Your task to perform on an android device: Open Youtube and go to "Your channel" Image 0: 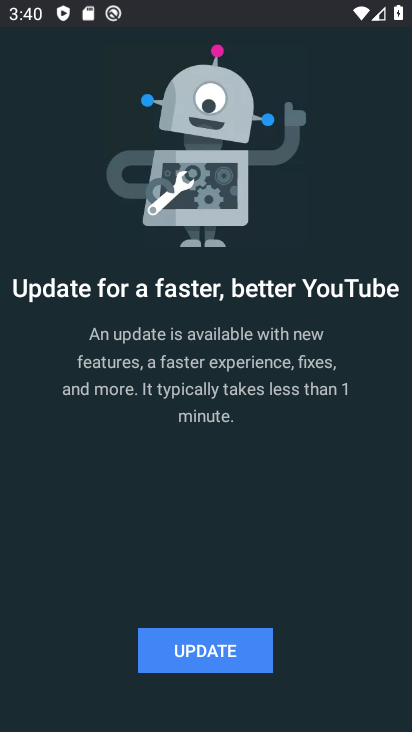
Step 0: click (216, 644)
Your task to perform on an android device: Open Youtube and go to "Your channel" Image 1: 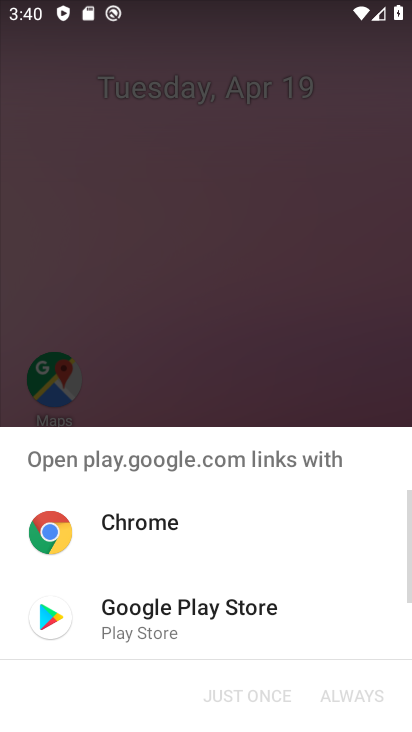
Step 1: click (216, 644)
Your task to perform on an android device: Open Youtube and go to "Your channel" Image 2: 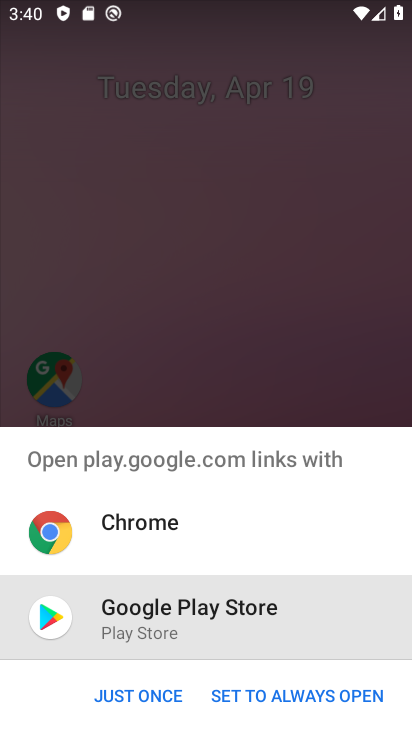
Step 2: click (139, 710)
Your task to perform on an android device: Open Youtube and go to "Your channel" Image 3: 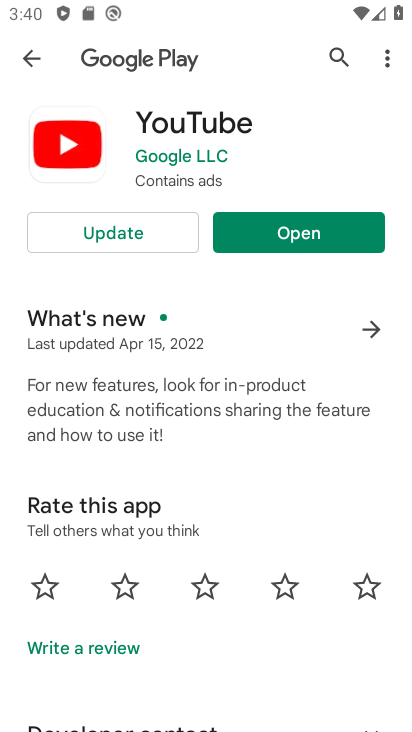
Step 3: click (296, 230)
Your task to perform on an android device: Open Youtube and go to "Your channel" Image 4: 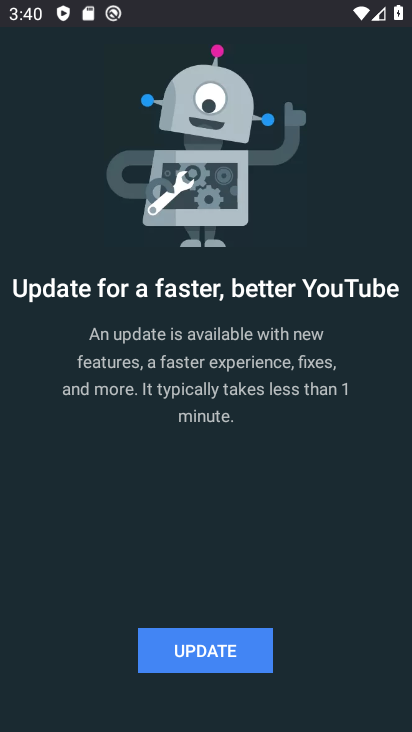
Step 4: click (205, 643)
Your task to perform on an android device: Open Youtube and go to "Your channel" Image 5: 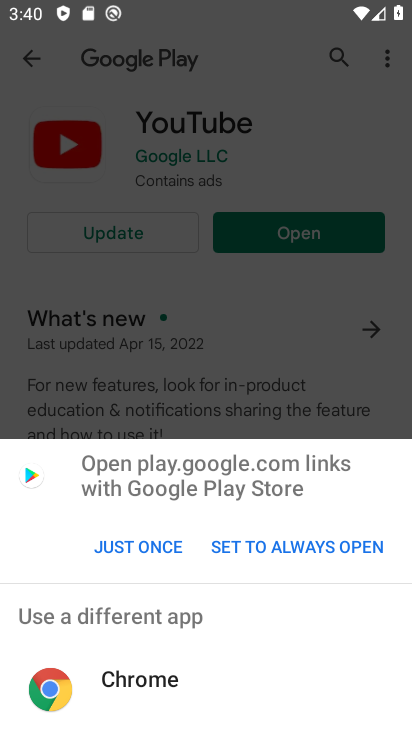
Step 5: click (162, 557)
Your task to perform on an android device: Open Youtube and go to "Your channel" Image 6: 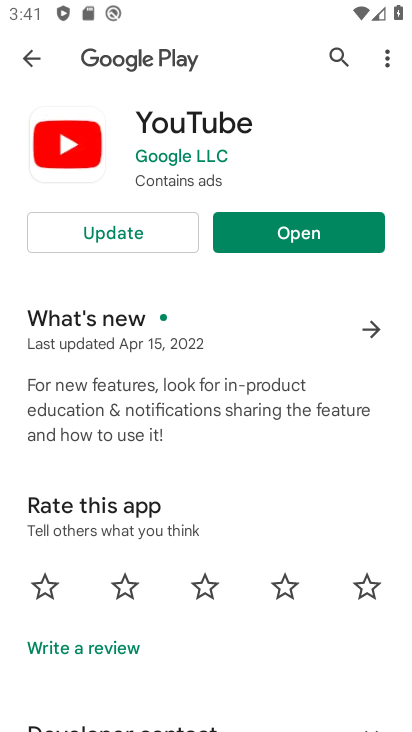
Step 6: click (286, 230)
Your task to perform on an android device: Open Youtube and go to "Your channel" Image 7: 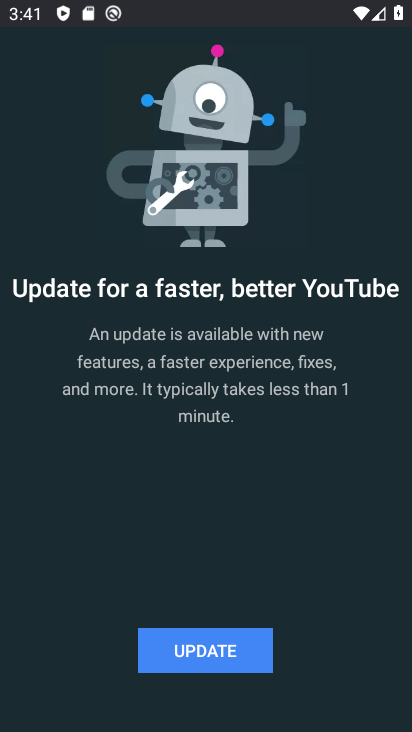
Step 7: click (187, 635)
Your task to perform on an android device: Open Youtube and go to "Your channel" Image 8: 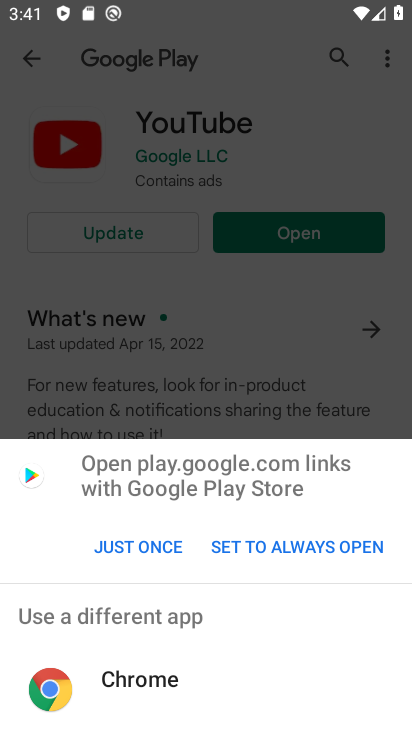
Step 8: click (154, 546)
Your task to perform on an android device: Open Youtube and go to "Your channel" Image 9: 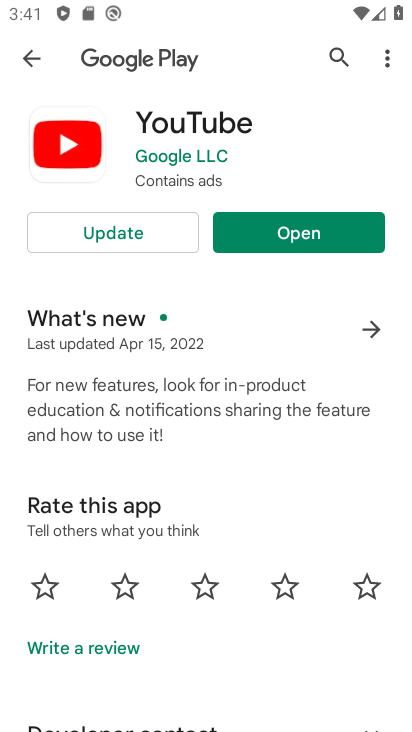
Step 9: click (341, 248)
Your task to perform on an android device: Open Youtube and go to "Your channel" Image 10: 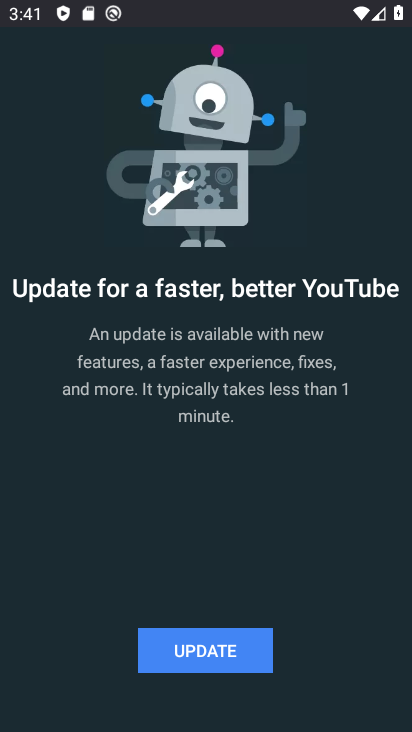
Step 10: click (202, 644)
Your task to perform on an android device: Open Youtube and go to "Your channel" Image 11: 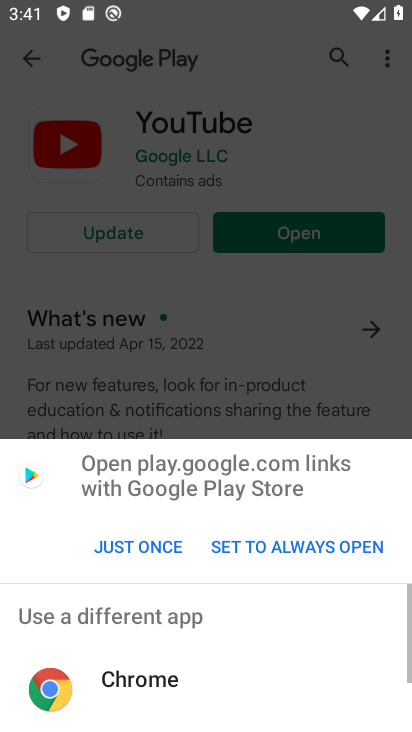
Step 11: click (202, 644)
Your task to perform on an android device: Open Youtube and go to "Your channel" Image 12: 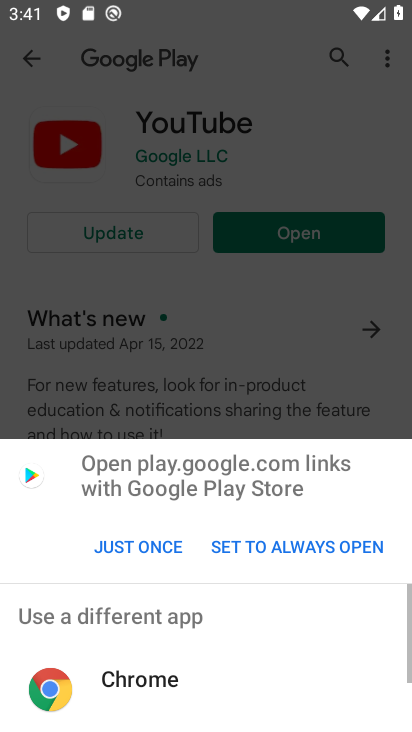
Step 12: click (170, 562)
Your task to perform on an android device: Open Youtube and go to "Your channel" Image 13: 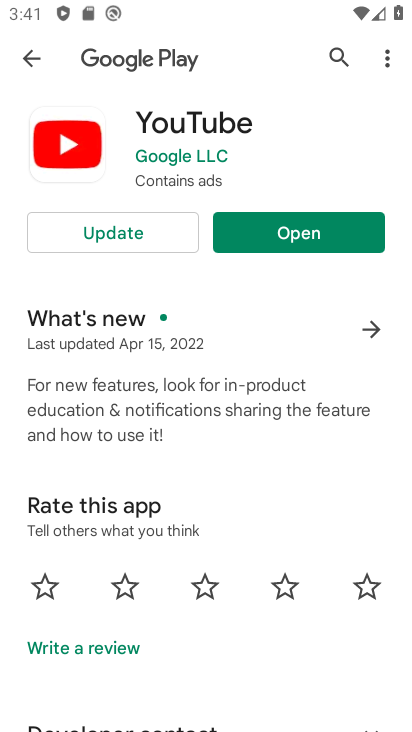
Step 13: click (131, 249)
Your task to perform on an android device: Open Youtube and go to "Your channel" Image 14: 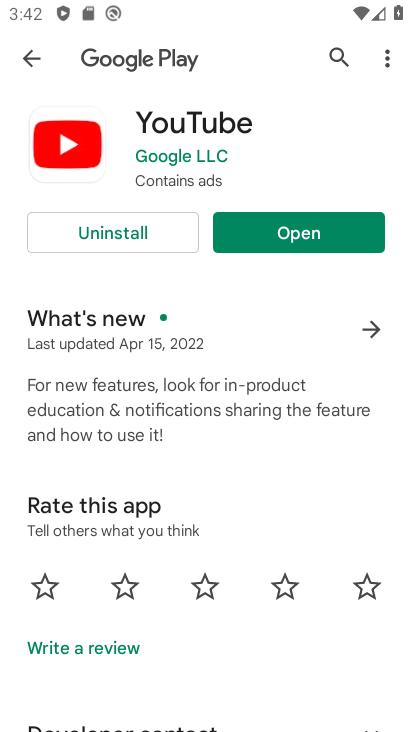
Step 14: click (334, 222)
Your task to perform on an android device: Open Youtube and go to "Your channel" Image 15: 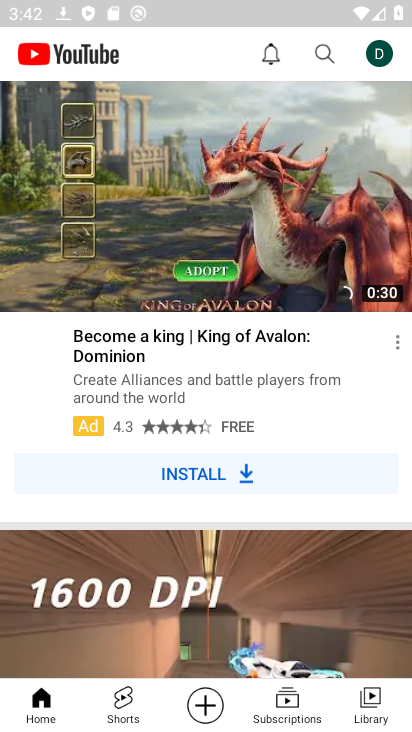
Step 15: click (322, 61)
Your task to perform on an android device: Open Youtube and go to "Your channel" Image 16: 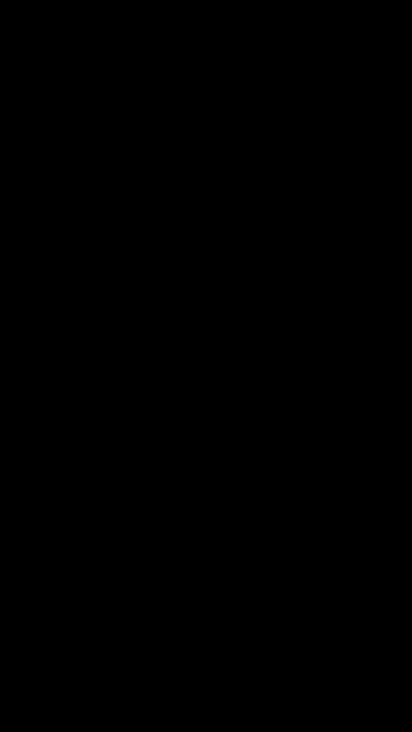
Step 16: click (125, 67)
Your task to perform on an android device: Open Youtube and go to "Your channel" Image 17: 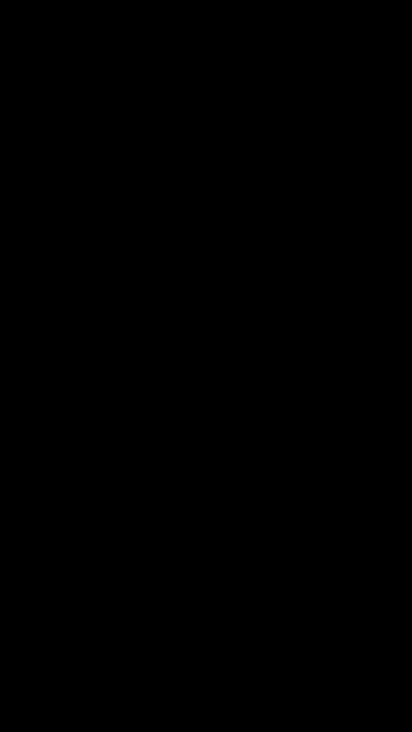
Step 17: task complete